Your task to perform on an android device: open app "Viber Messenger" Image 0: 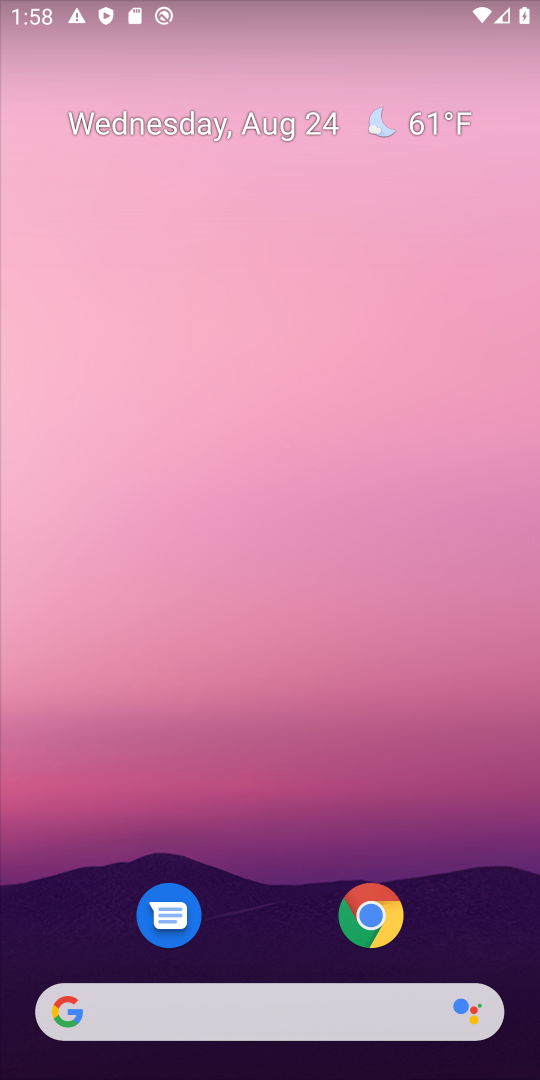
Step 0: drag from (241, 859) to (213, 312)
Your task to perform on an android device: open app "Viber Messenger" Image 1: 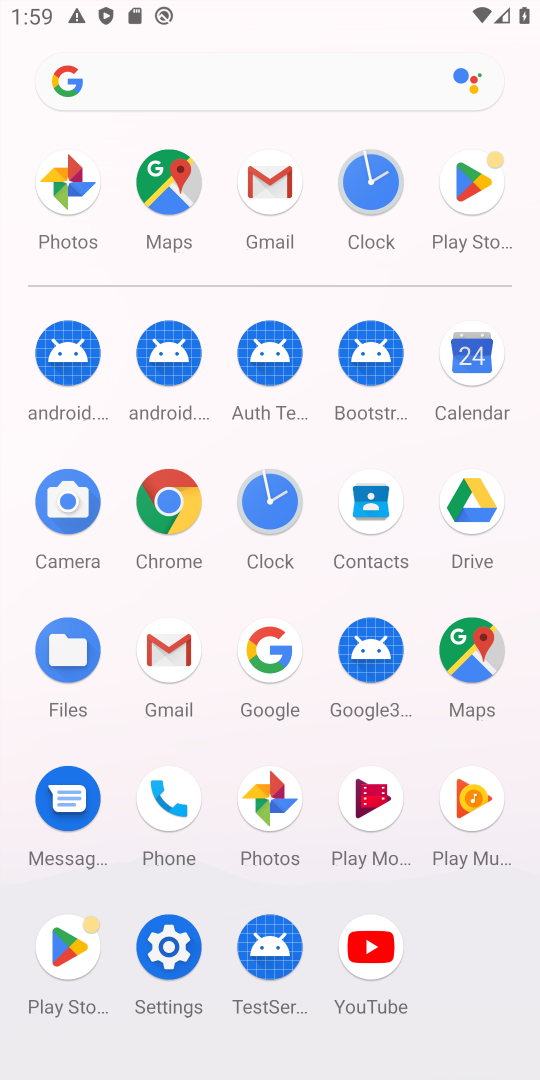
Step 1: click (451, 182)
Your task to perform on an android device: open app "Viber Messenger" Image 2: 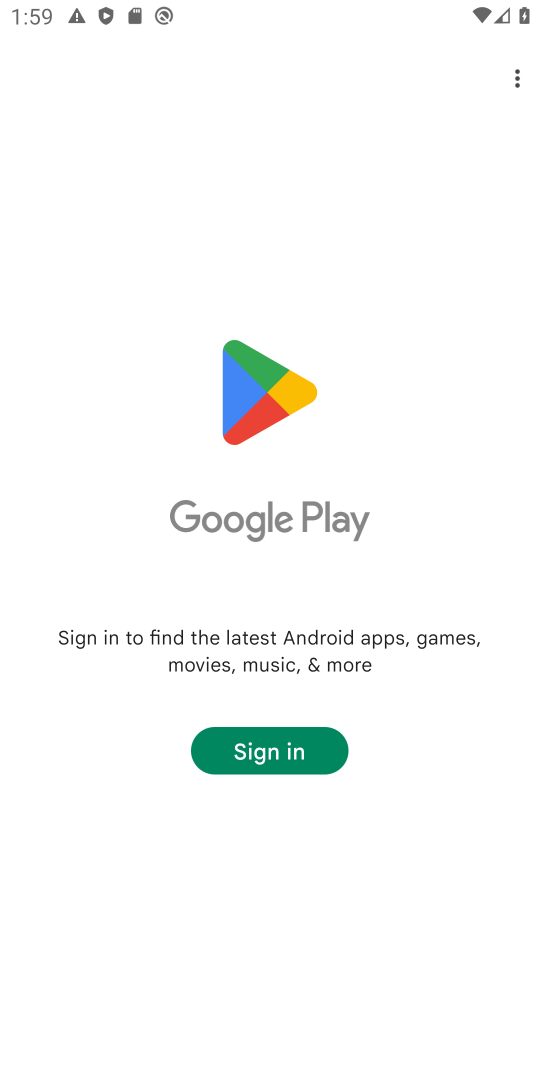
Step 2: task complete